Your task to perform on an android device: turn off notifications settings in the gmail app Image 0: 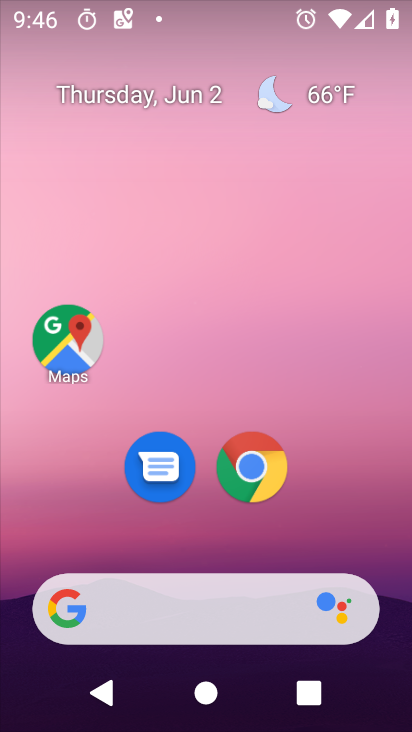
Step 0: drag from (31, 623) to (289, 184)
Your task to perform on an android device: turn off notifications settings in the gmail app Image 1: 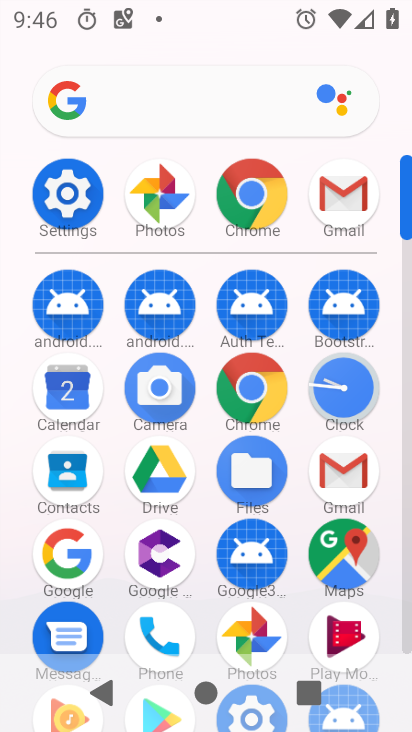
Step 1: click (327, 206)
Your task to perform on an android device: turn off notifications settings in the gmail app Image 2: 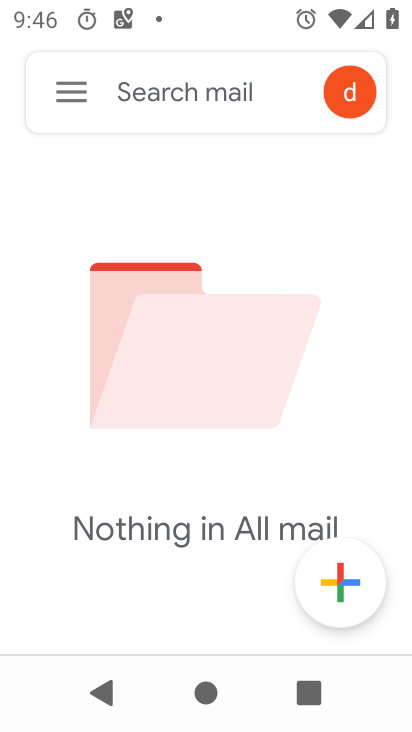
Step 2: click (73, 116)
Your task to perform on an android device: turn off notifications settings in the gmail app Image 3: 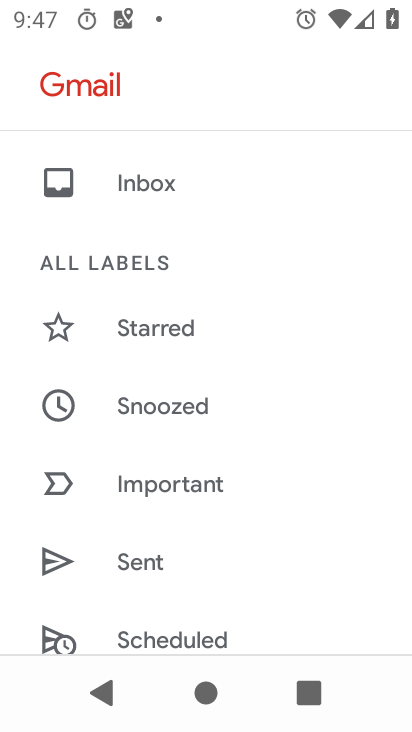
Step 3: task complete